Your task to perform on an android device: find photos in the google photos app Image 0: 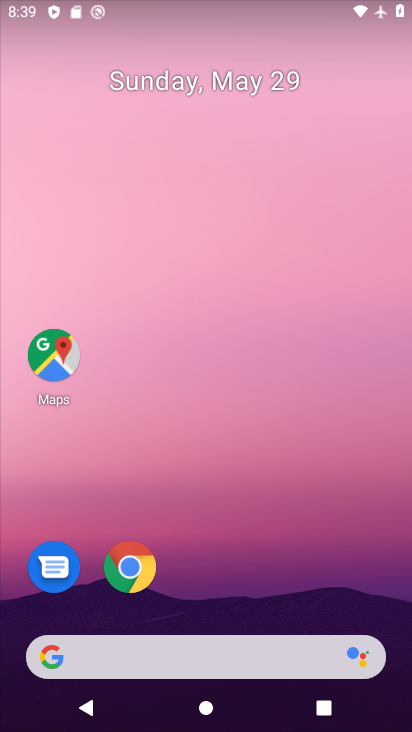
Step 0: drag from (387, 598) to (343, 90)
Your task to perform on an android device: find photos in the google photos app Image 1: 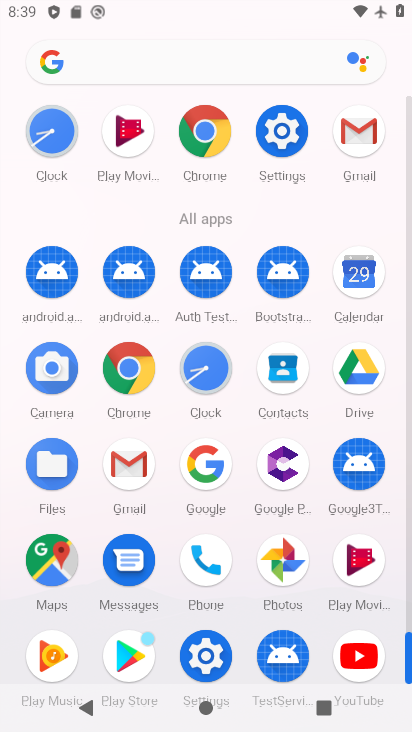
Step 1: click (281, 562)
Your task to perform on an android device: find photos in the google photos app Image 2: 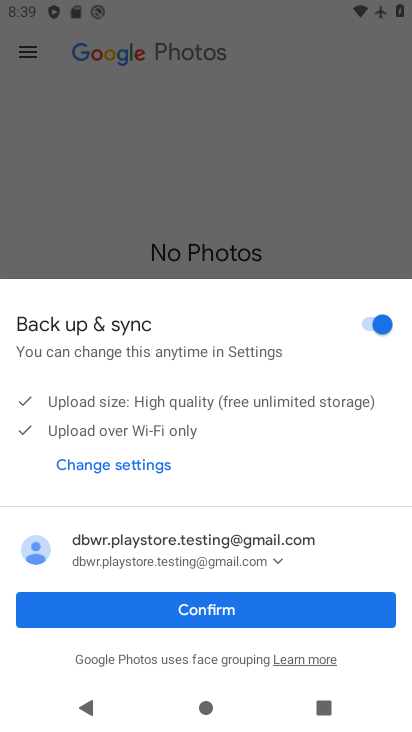
Step 2: click (212, 616)
Your task to perform on an android device: find photos in the google photos app Image 3: 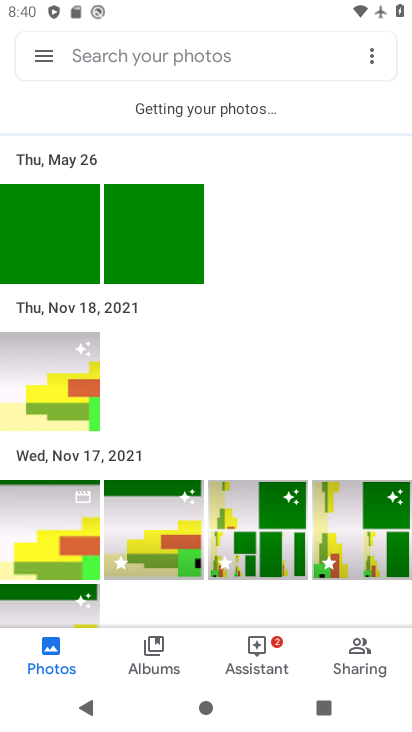
Step 3: task complete